Your task to perform on an android device: Check the weather Image 0: 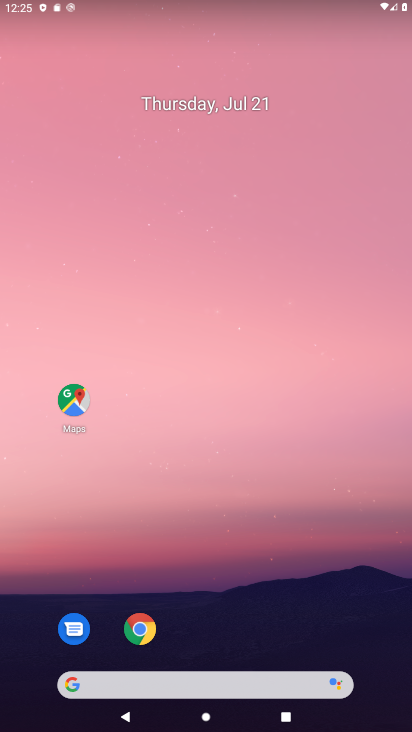
Step 0: click (145, 634)
Your task to perform on an android device: Check the weather Image 1: 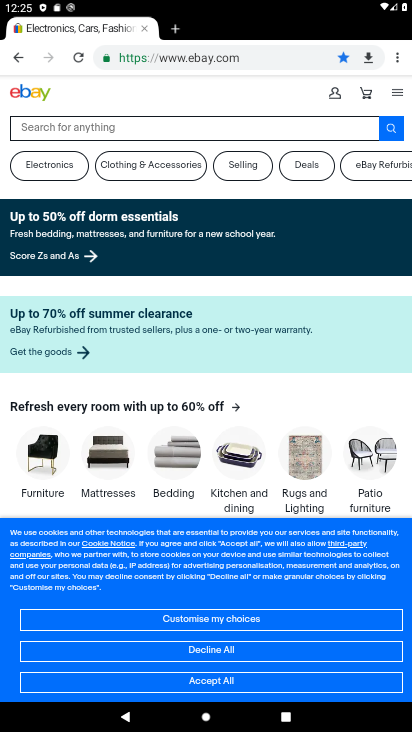
Step 1: click (223, 51)
Your task to perform on an android device: Check the weather Image 2: 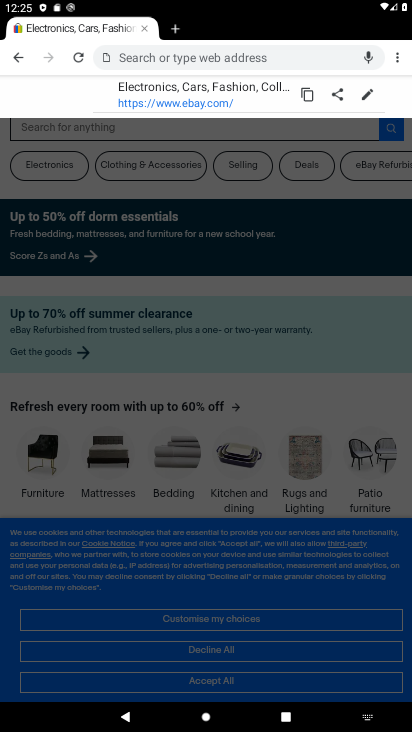
Step 2: type "Check the weather"
Your task to perform on an android device: Check the weather Image 3: 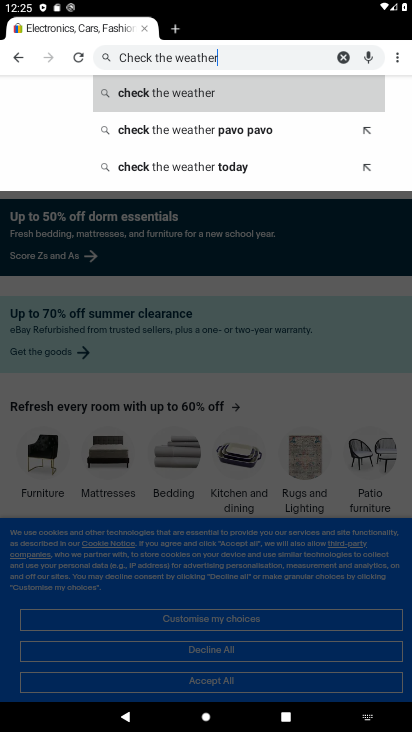
Step 3: click (166, 87)
Your task to perform on an android device: Check the weather Image 4: 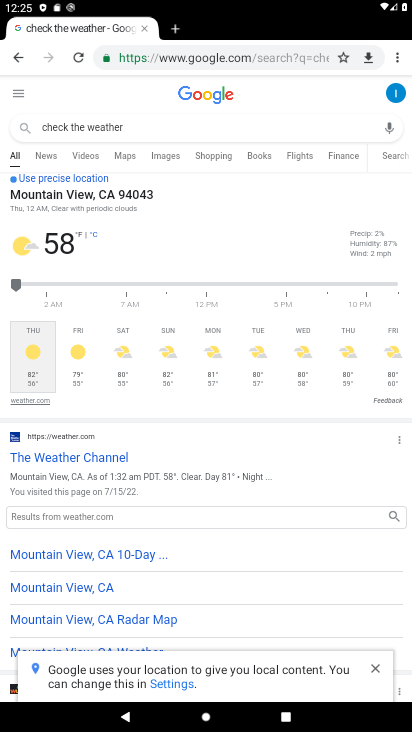
Step 4: task complete